Your task to perform on an android device: turn vacation reply on in the gmail app Image 0: 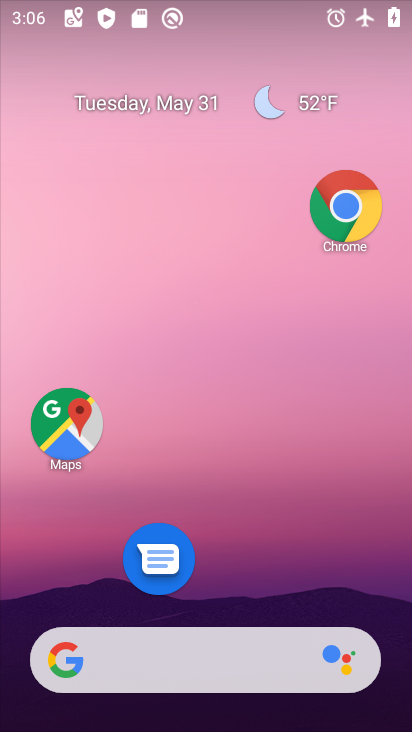
Step 0: drag from (259, 566) to (238, 110)
Your task to perform on an android device: turn vacation reply on in the gmail app Image 1: 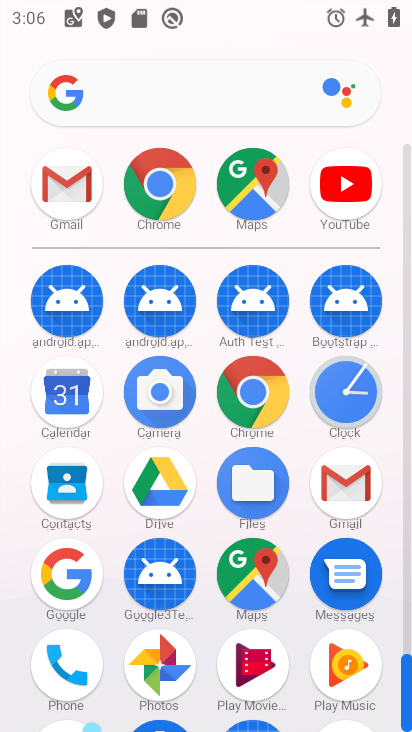
Step 1: drag from (192, 252) to (208, 80)
Your task to perform on an android device: turn vacation reply on in the gmail app Image 2: 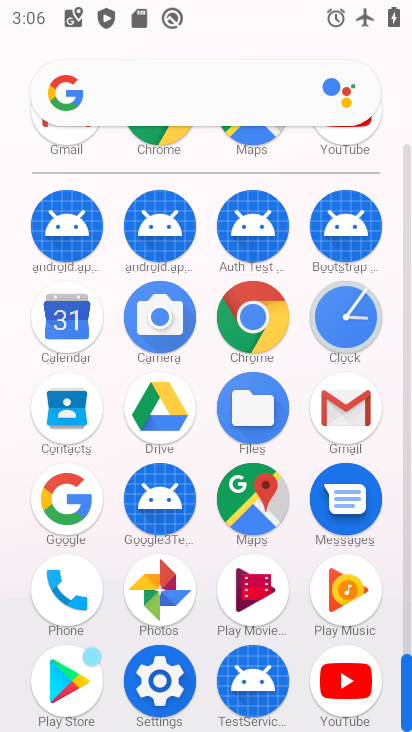
Step 2: click (345, 420)
Your task to perform on an android device: turn vacation reply on in the gmail app Image 3: 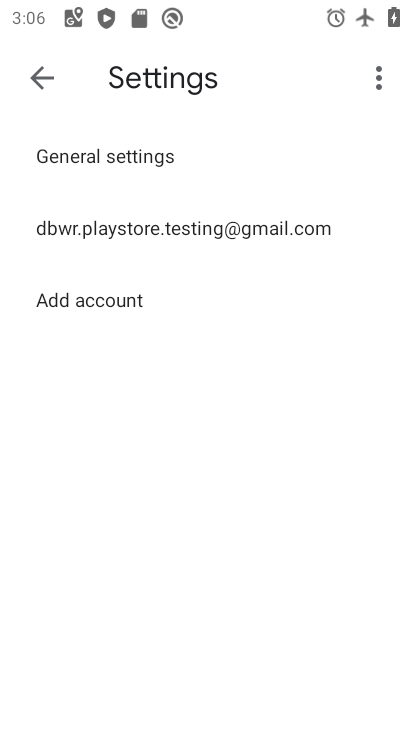
Step 3: click (212, 244)
Your task to perform on an android device: turn vacation reply on in the gmail app Image 4: 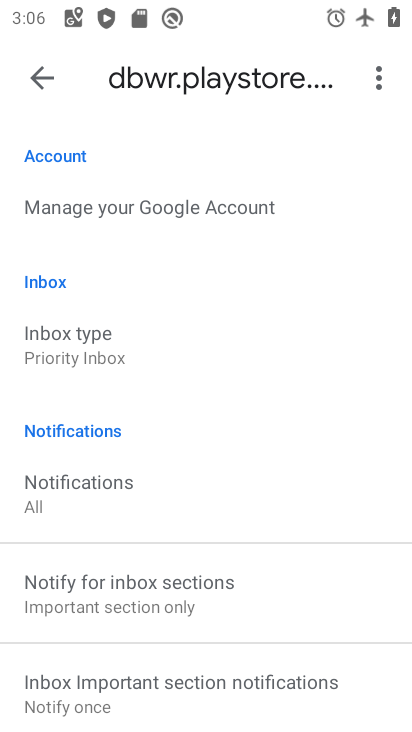
Step 4: drag from (196, 598) to (235, 254)
Your task to perform on an android device: turn vacation reply on in the gmail app Image 5: 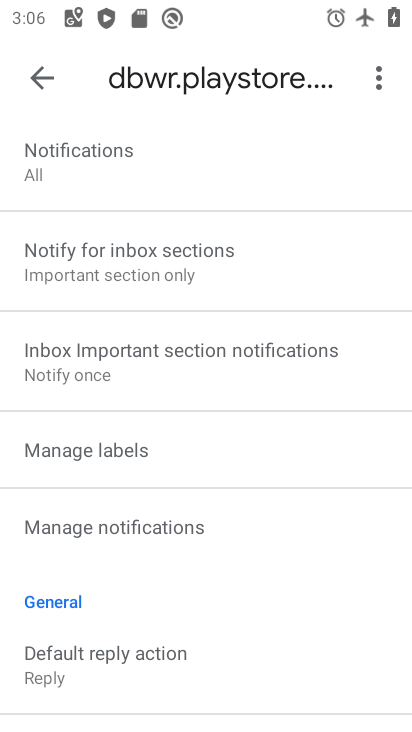
Step 5: drag from (253, 636) to (265, 267)
Your task to perform on an android device: turn vacation reply on in the gmail app Image 6: 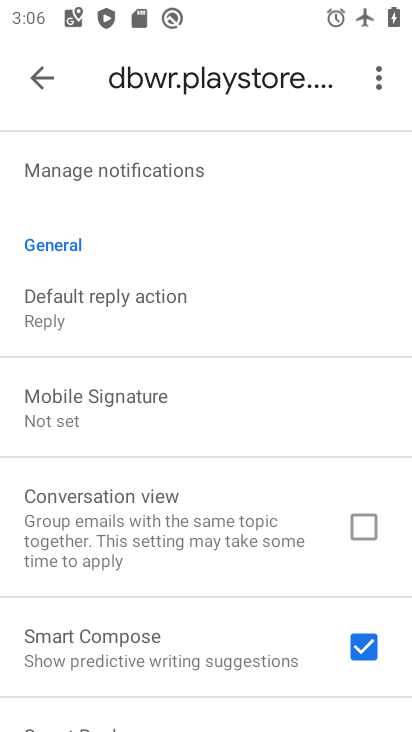
Step 6: drag from (309, 651) to (320, 272)
Your task to perform on an android device: turn vacation reply on in the gmail app Image 7: 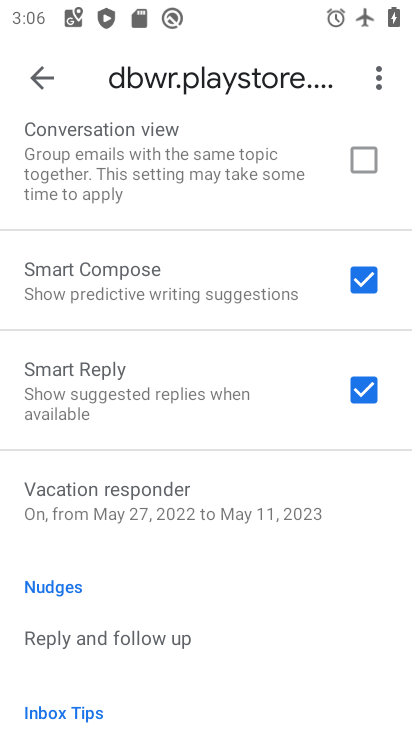
Step 7: click (170, 525)
Your task to perform on an android device: turn vacation reply on in the gmail app Image 8: 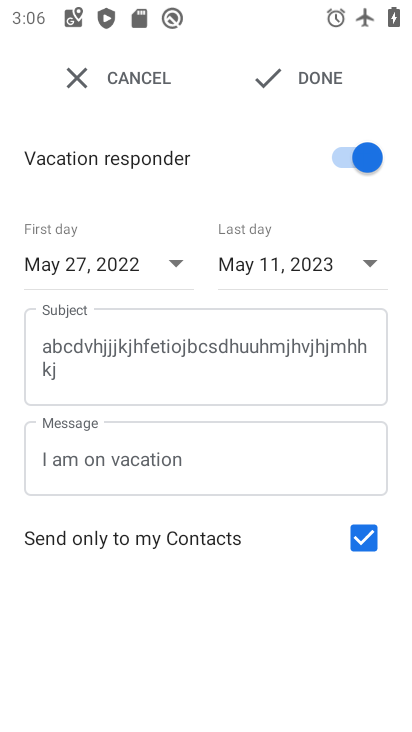
Step 8: click (295, 85)
Your task to perform on an android device: turn vacation reply on in the gmail app Image 9: 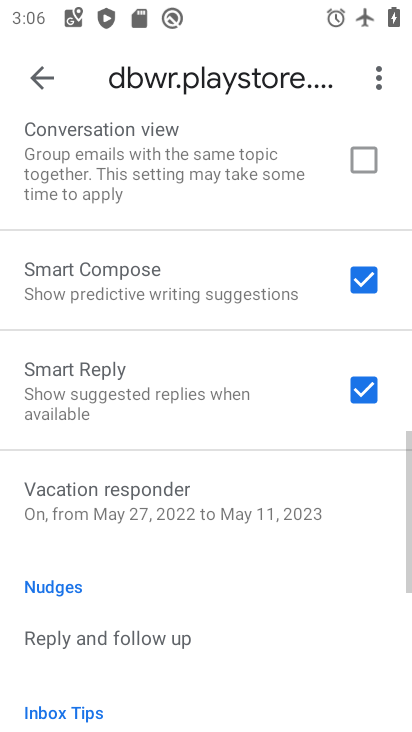
Step 9: task complete